Your task to perform on an android device: check storage Image 0: 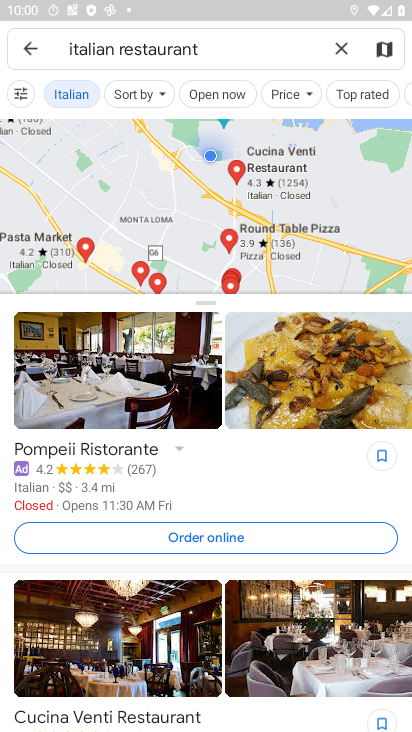
Step 0: press home button
Your task to perform on an android device: check storage Image 1: 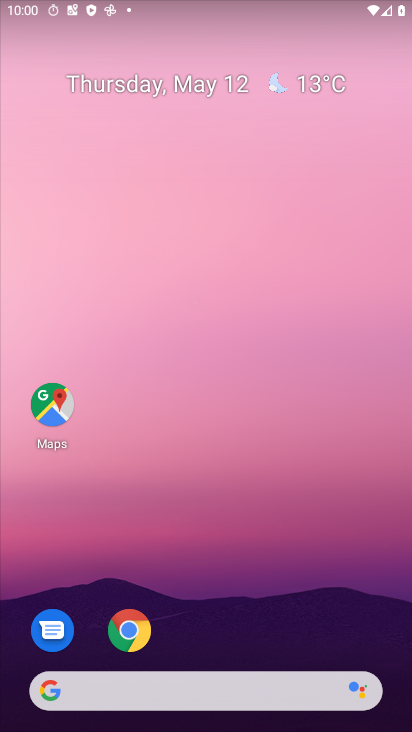
Step 1: drag from (195, 677) to (168, 98)
Your task to perform on an android device: check storage Image 2: 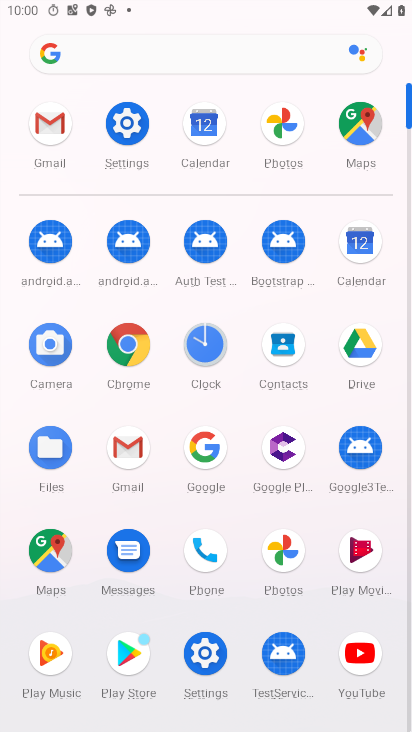
Step 2: click (124, 119)
Your task to perform on an android device: check storage Image 3: 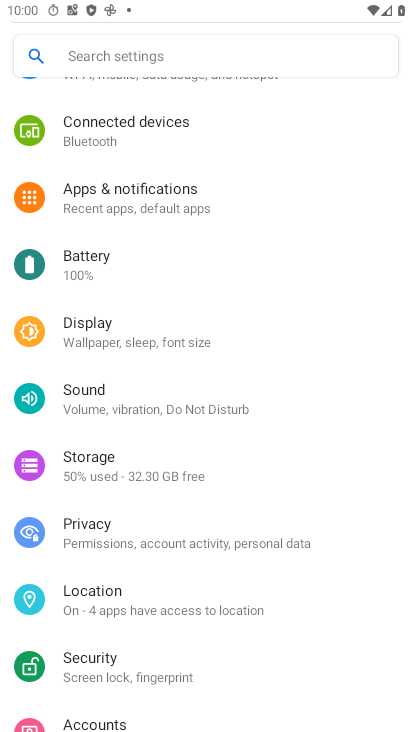
Step 3: drag from (112, 616) to (98, 241)
Your task to perform on an android device: check storage Image 4: 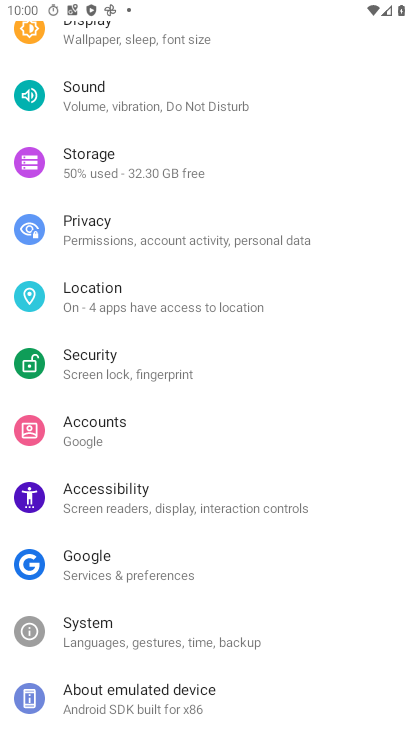
Step 4: click (100, 177)
Your task to perform on an android device: check storage Image 5: 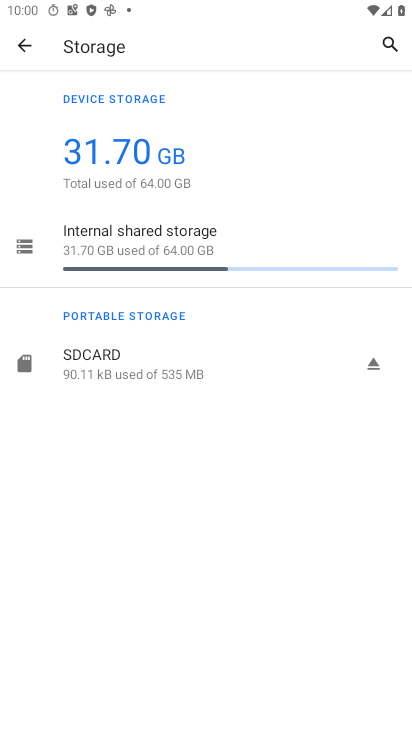
Step 5: click (135, 251)
Your task to perform on an android device: check storage Image 6: 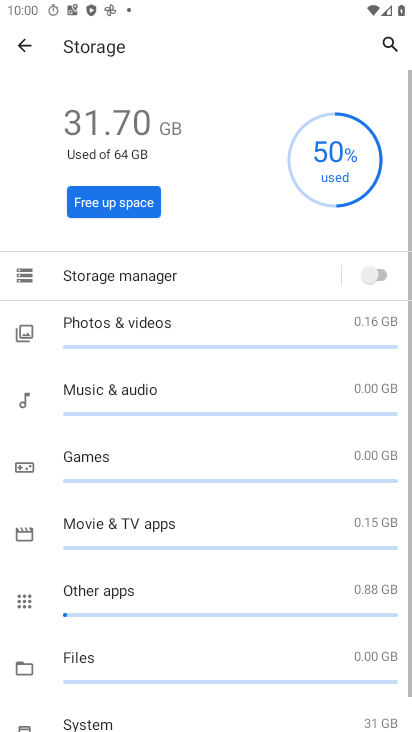
Step 6: task complete